Your task to perform on an android device: Open calendar and show me the third week of next month Image 0: 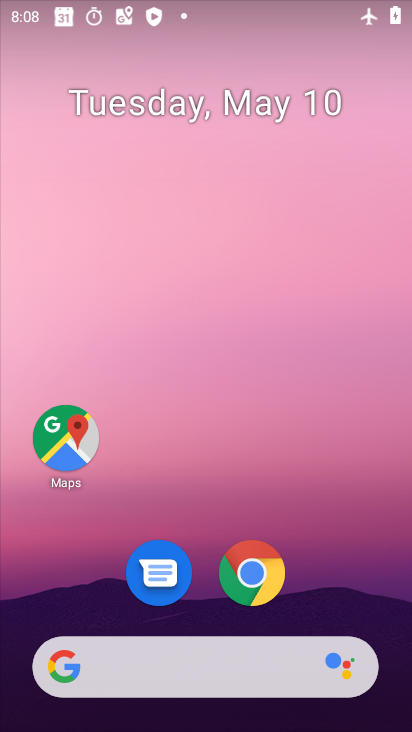
Step 0: drag from (338, 581) to (333, 195)
Your task to perform on an android device: Open calendar and show me the third week of next month Image 1: 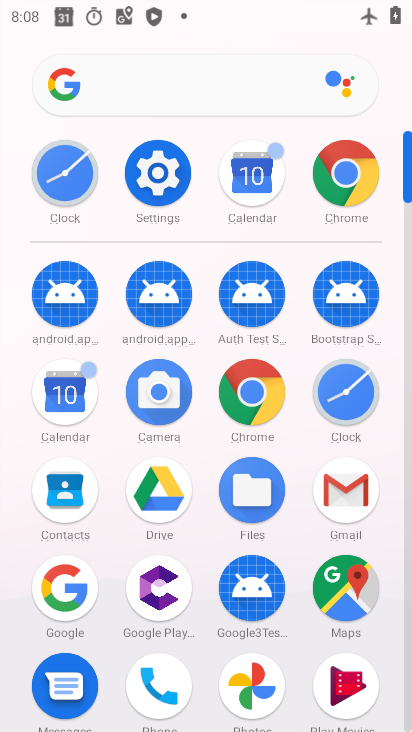
Step 1: click (74, 414)
Your task to perform on an android device: Open calendar and show me the third week of next month Image 2: 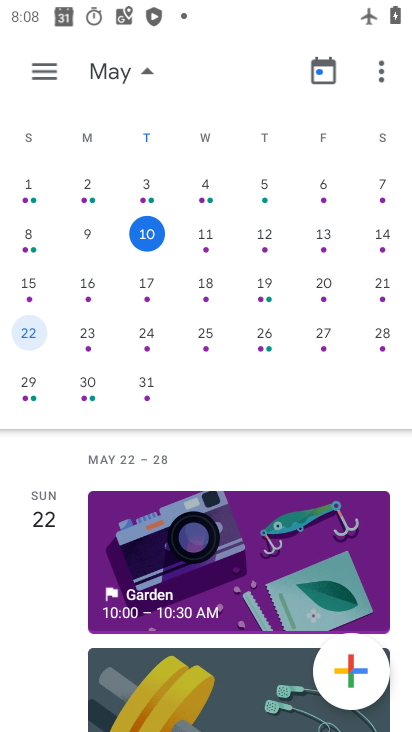
Step 2: drag from (347, 166) to (9, 220)
Your task to perform on an android device: Open calendar and show me the third week of next month Image 3: 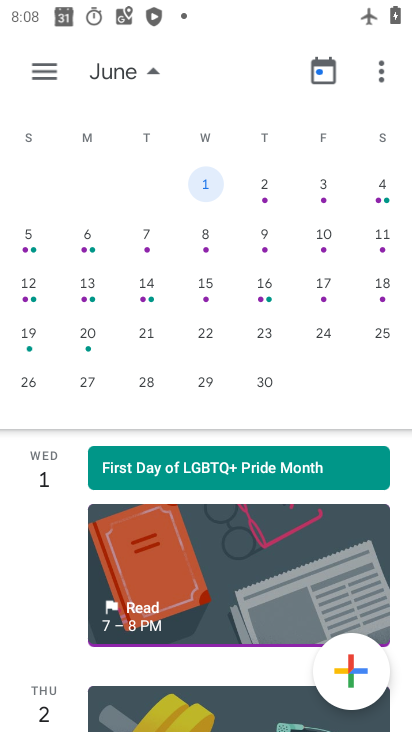
Step 3: click (29, 288)
Your task to perform on an android device: Open calendar and show me the third week of next month Image 4: 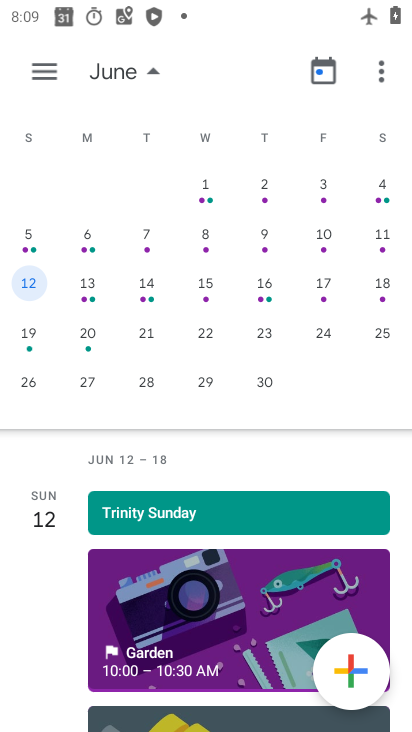
Step 4: task complete